Your task to perform on an android device: open device folders in google photos Image 0: 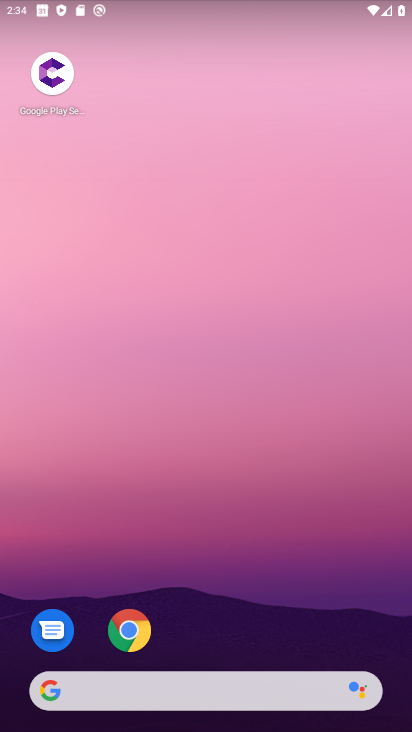
Step 0: drag from (211, 693) to (207, 2)
Your task to perform on an android device: open device folders in google photos Image 1: 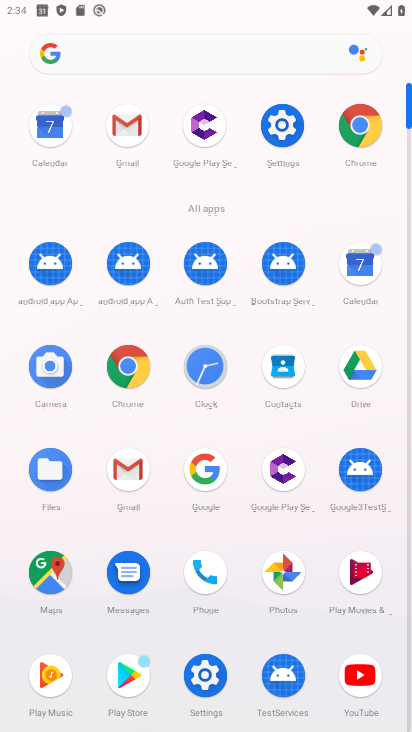
Step 1: click (290, 563)
Your task to perform on an android device: open device folders in google photos Image 2: 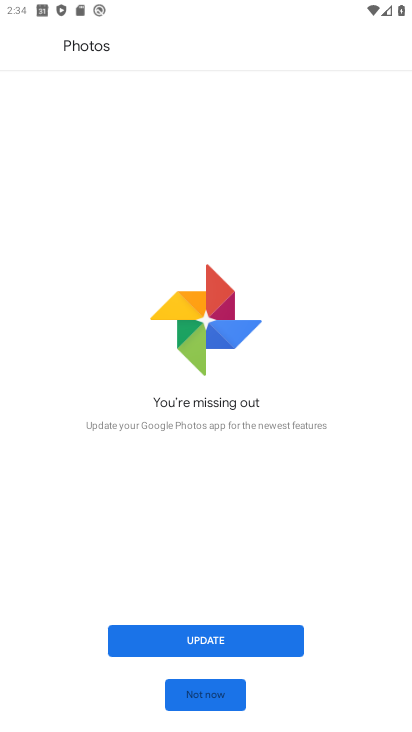
Step 2: press home button
Your task to perform on an android device: open device folders in google photos Image 3: 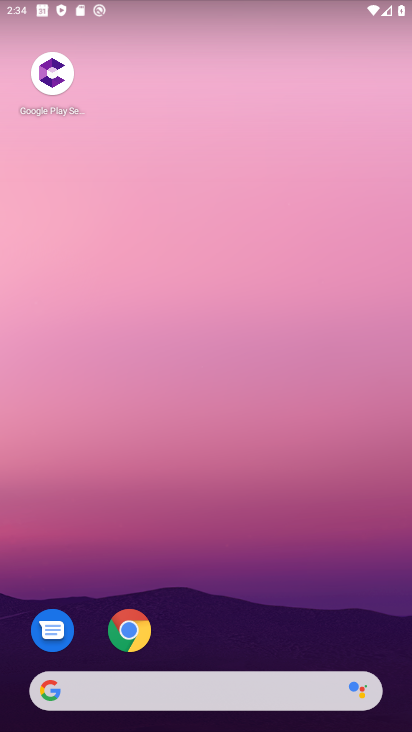
Step 3: drag from (213, 667) to (355, 57)
Your task to perform on an android device: open device folders in google photos Image 4: 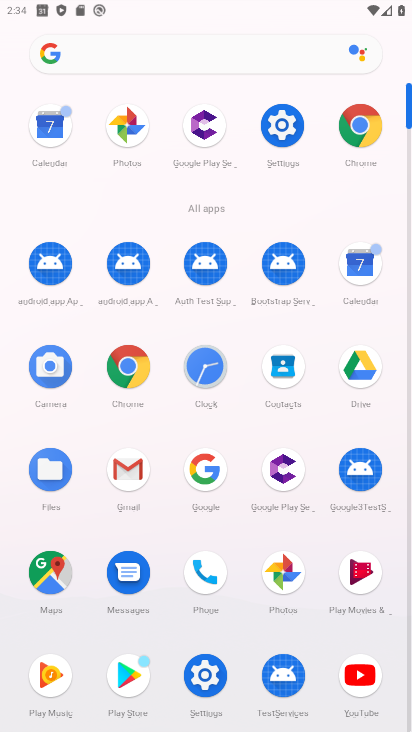
Step 4: click (293, 582)
Your task to perform on an android device: open device folders in google photos Image 5: 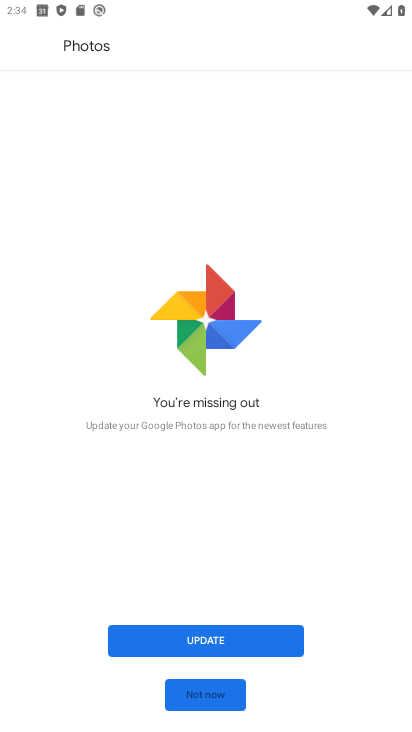
Step 5: click (226, 694)
Your task to perform on an android device: open device folders in google photos Image 6: 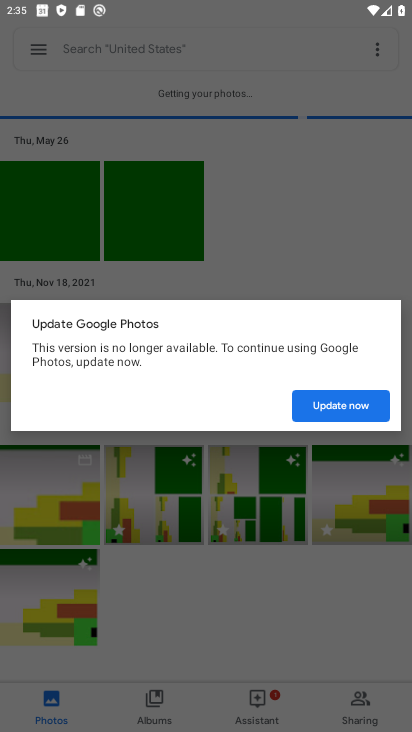
Step 6: click (331, 409)
Your task to perform on an android device: open device folders in google photos Image 7: 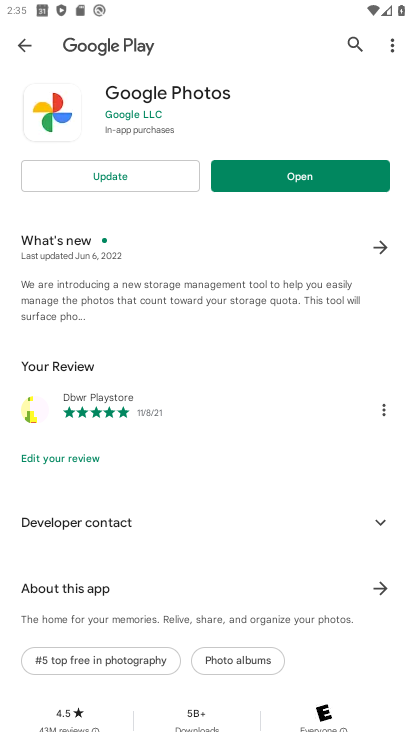
Step 7: click (79, 165)
Your task to perform on an android device: open device folders in google photos Image 8: 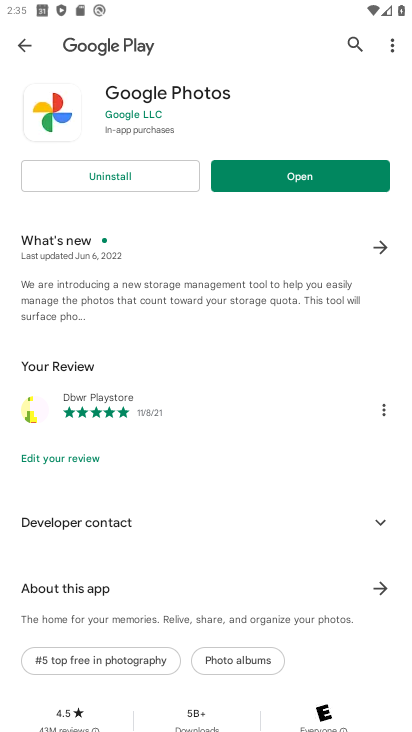
Step 8: click (281, 175)
Your task to perform on an android device: open device folders in google photos Image 9: 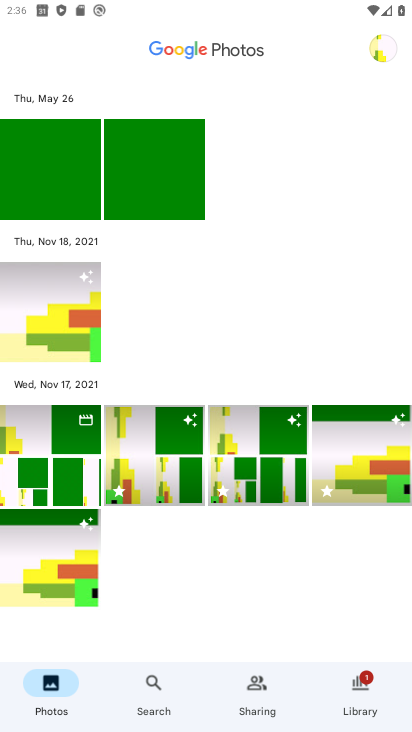
Step 9: click (353, 690)
Your task to perform on an android device: open device folders in google photos Image 10: 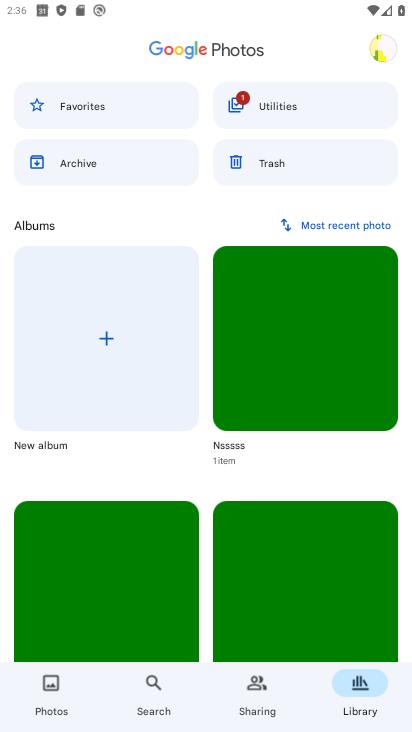
Step 10: task complete